Your task to perform on an android device: Open location settings Image 0: 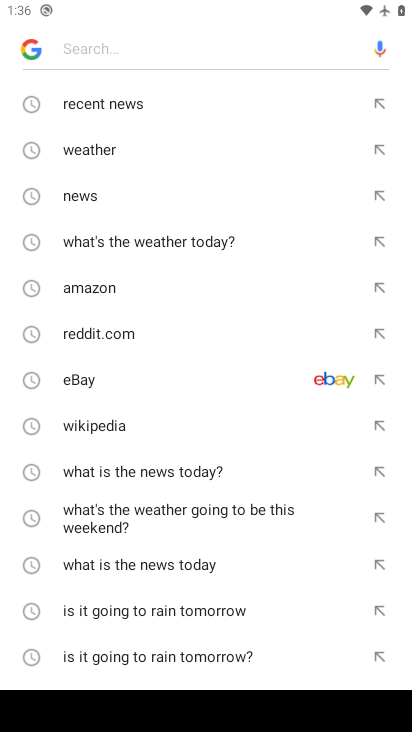
Step 0: press home button
Your task to perform on an android device: Open location settings Image 1: 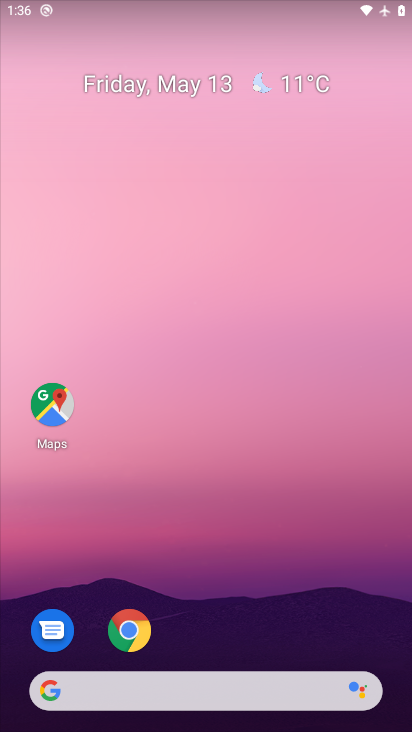
Step 1: drag from (223, 606) to (249, 212)
Your task to perform on an android device: Open location settings Image 2: 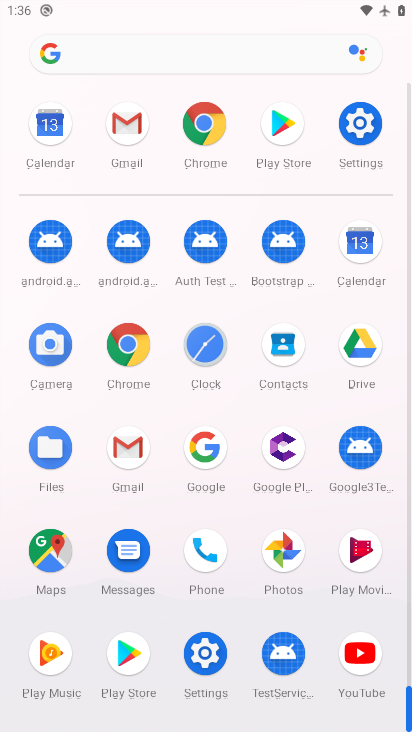
Step 2: click (352, 140)
Your task to perform on an android device: Open location settings Image 3: 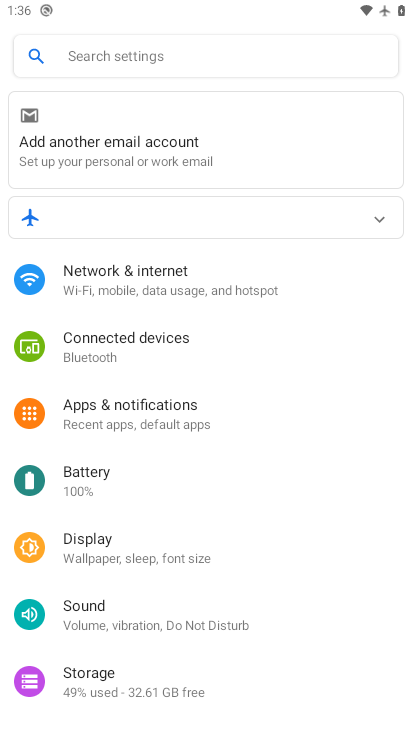
Step 3: click (132, 374)
Your task to perform on an android device: Open location settings Image 4: 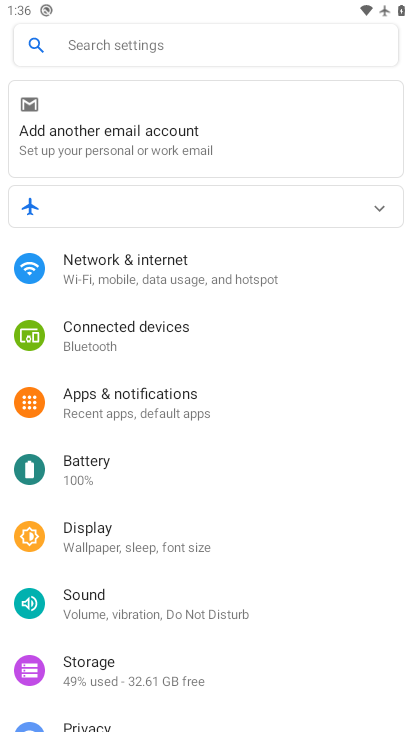
Step 4: drag from (142, 312) to (141, 228)
Your task to perform on an android device: Open location settings Image 5: 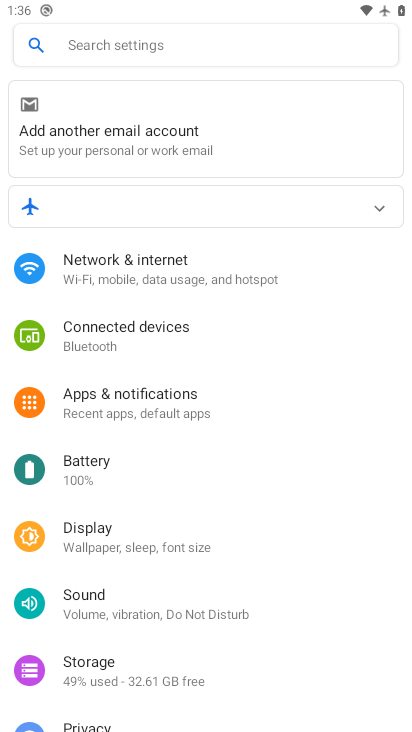
Step 5: drag from (217, 626) to (207, 313)
Your task to perform on an android device: Open location settings Image 6: 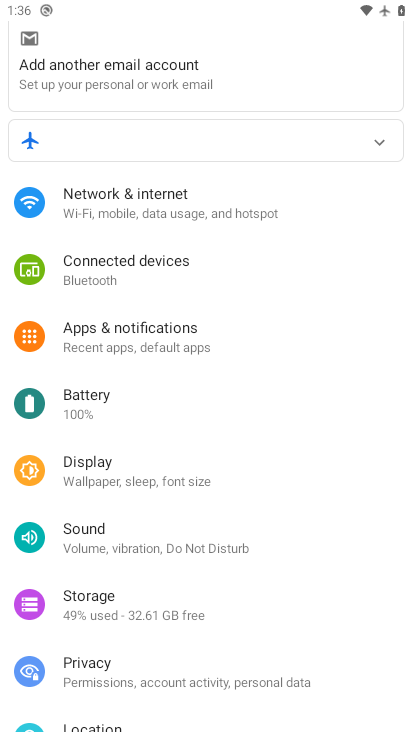
Step 6: drag from (173, 636) to (183, 316)
Your task to perform on an android device: Open location settings Image 7: 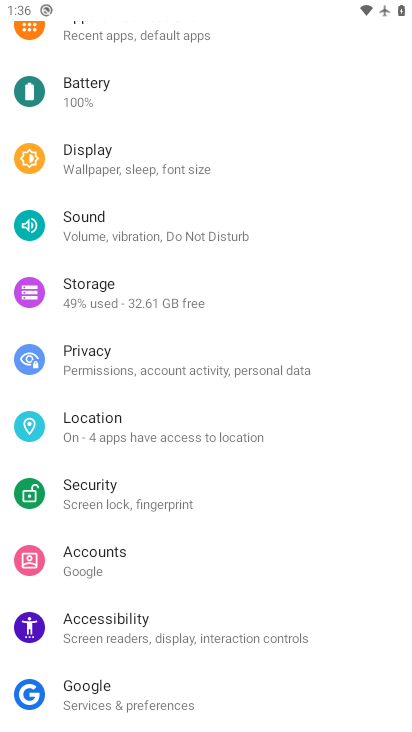
Step 7: click (132, 442)
Your task to perform on an android device: Open location settings Image 8: 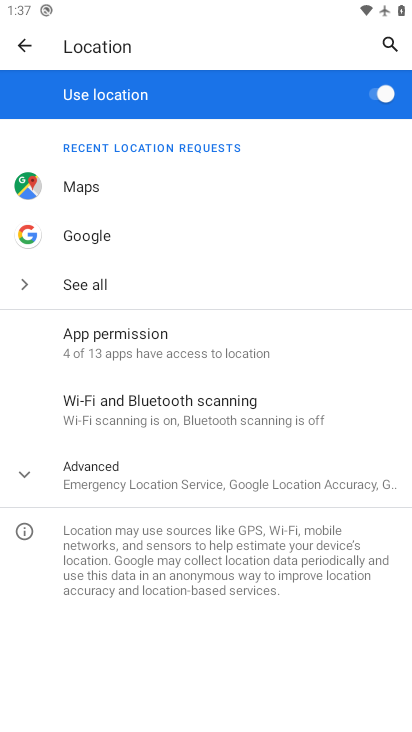
Step 8: task complete